Your task to perform on an android device: Open the phone app and click the voicemail tab. Image 0: 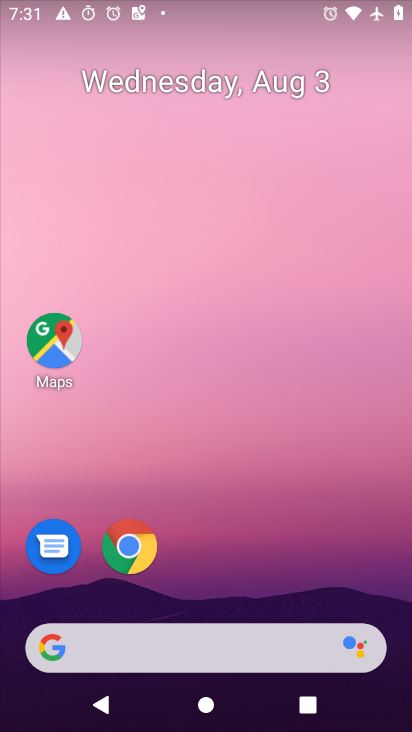
Step 0: drag from (251, 576) to (364, 16)
Your task to perform on an android device: Open the phone app and click the voicemail tab. Image 1: 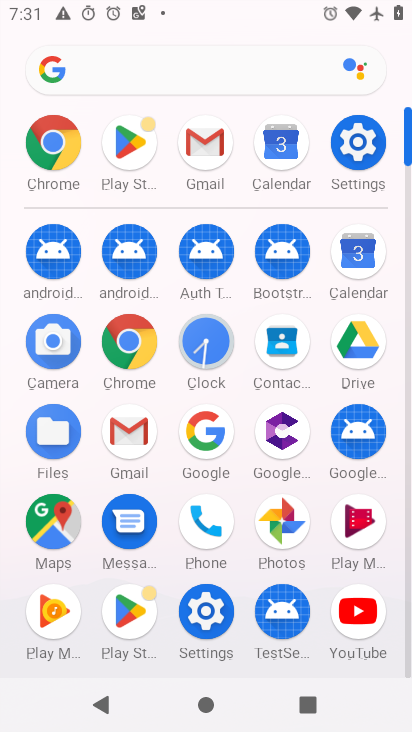
Step 1: click (205, 529)
Your task to perform on an android device: Open the phone app and click the voicemail tab. Image 2: 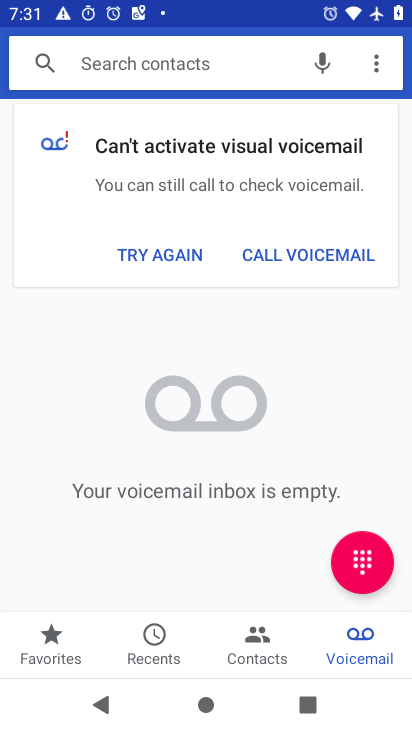
Step 2: click (355, 636)
Your task to perform on an android device: Open the phone app and click the voicemail tab. Image 3: 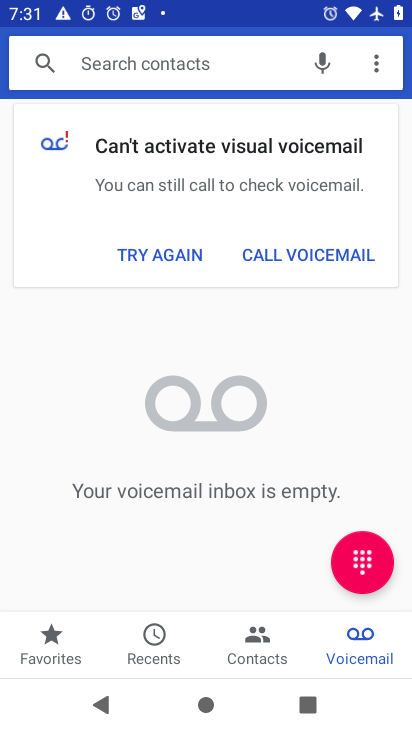
Step 3: task complete